Your task to perform on an android device: open a bookmark in the chrome app Image 0: 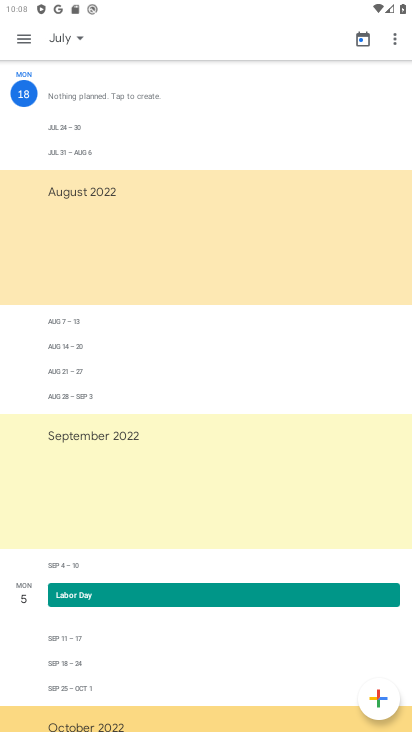
Step 0: press home button
Your task to perform on an android device: open a bookmark in the chrome app Image 1: 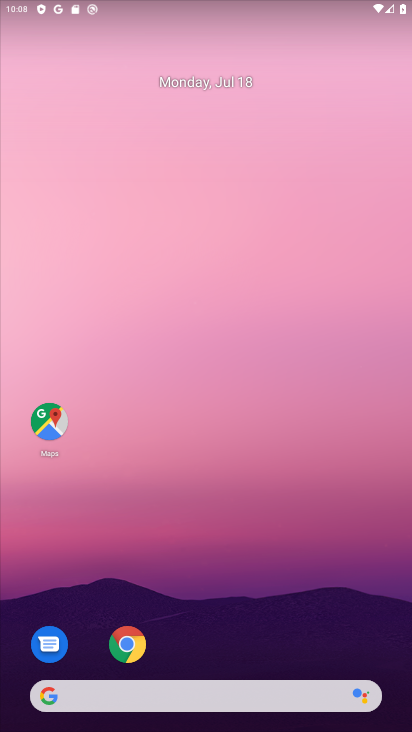
Step 1: drag from (226, 620) to (258, 201)
Your task to perform on an android device: open a bookmark in the chrome app Image 2: 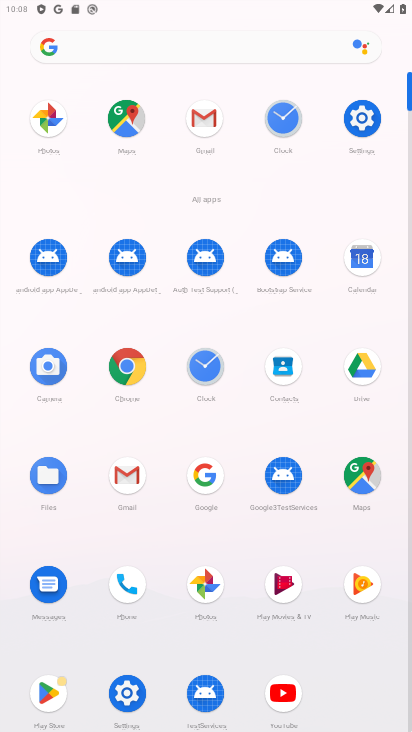
Step 2: click (124, 351)
Your task to perform on an android device: open a bookmark in the chrome app Image 3: 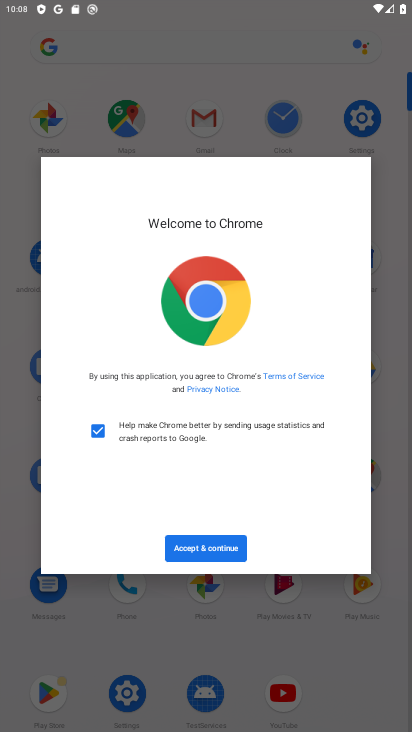
Step 3: click (202, 558)
Your task to perform on an android device: open a bookmark in the chrome app Image 4: 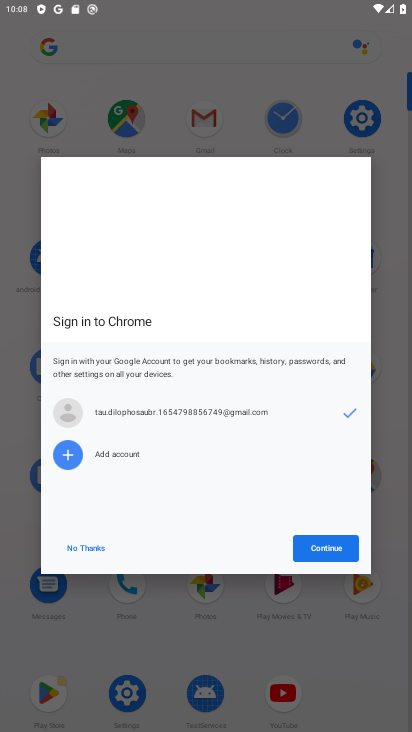
Step 4: click (342, 544)
Your task to perform on an android device: open a bookmark in the chrome app Image 5: 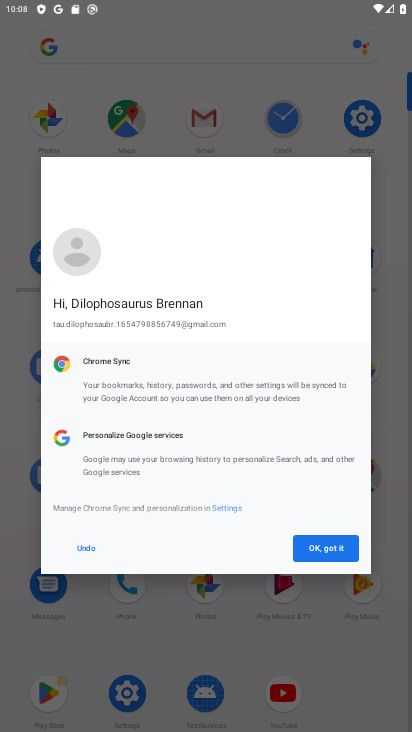
Step 5: click (341, 544)
Your task to perform on an android device: open a bookmark in the chrome app Image 6: 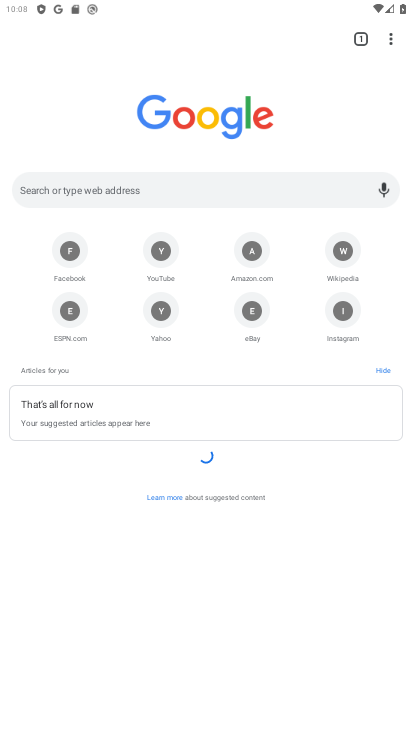
Step 6: drag from (389, 42) to (348, 137)
Your task to perform on an android device: open a bookmark in the chrome app Image 7: 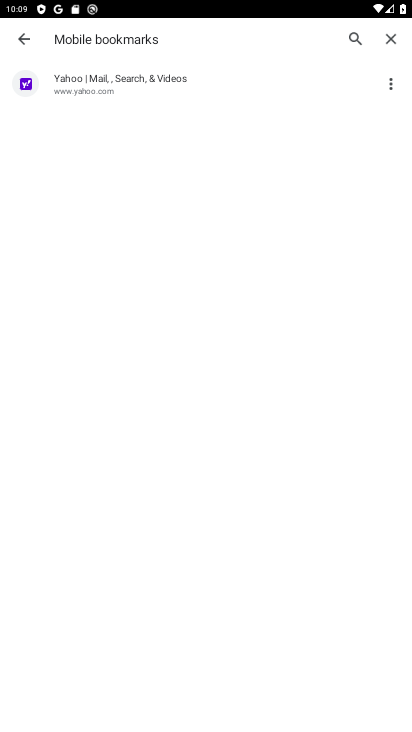
Step 7: click (197, 96)
Your task to perform on an android device: open a bookmark in the chrome app Image 8: 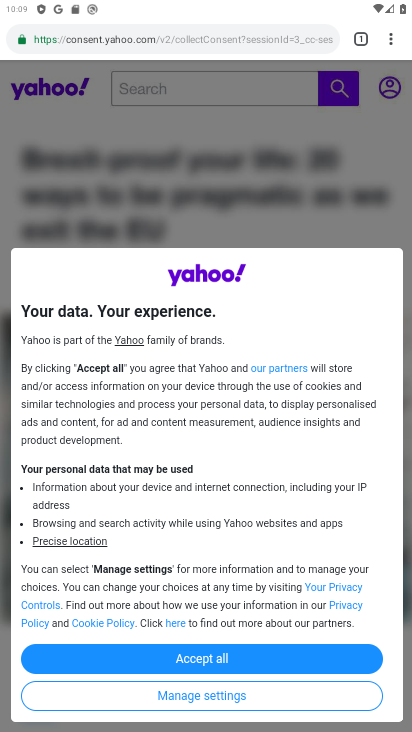
Step 8: click (262, 655)
Your task to perform on an android device: open a bookmark in the chrome app Image 9: 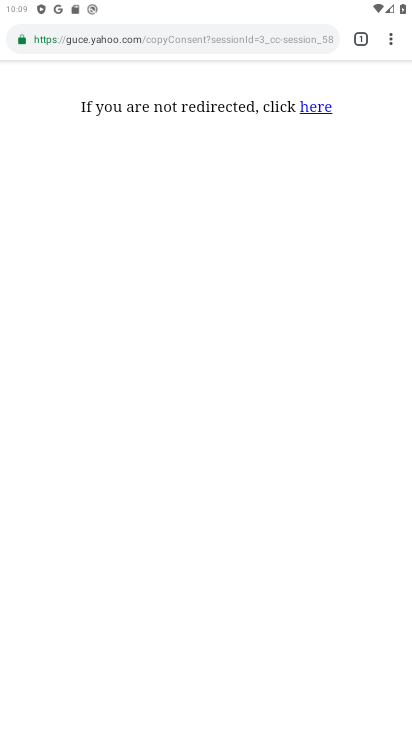
Step 9: click (324, 102)
Your task to perform on an android device: open a bookmark in the chrome app Image 10: 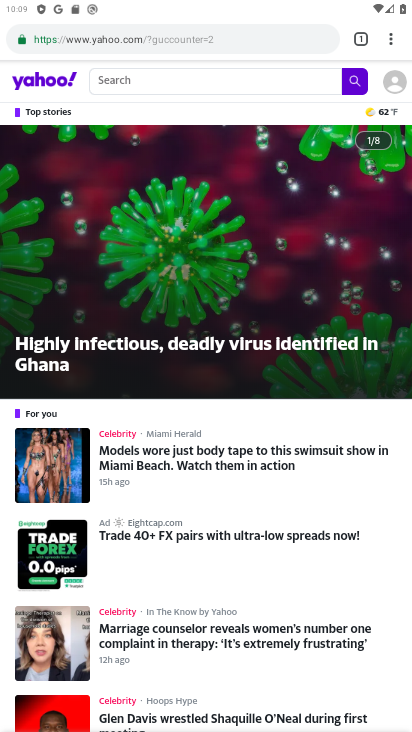
Step 10: task complete